Your task to perform on an android device: Open sound settings Image 0: 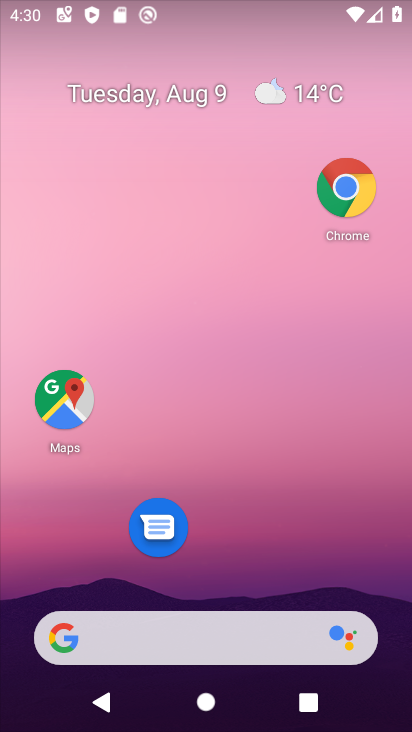
Step 0: drag from (192, 584) to (199, 114)
Your task to perform on an android device: Open sound settings Image 1: 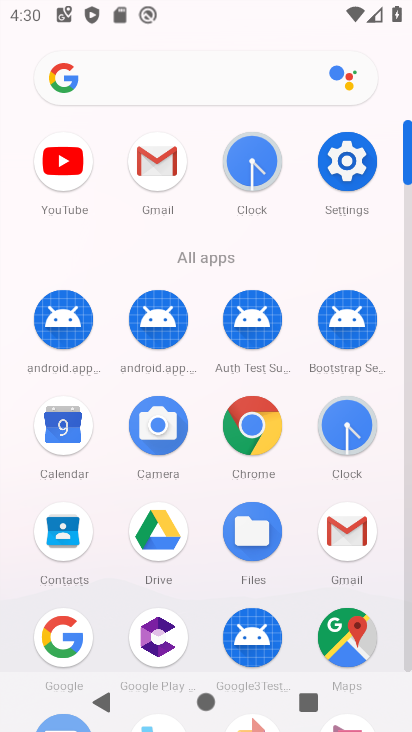
Step 1: click (340, 170)
Your task to perform on an android device: Open sound settings Image 2: 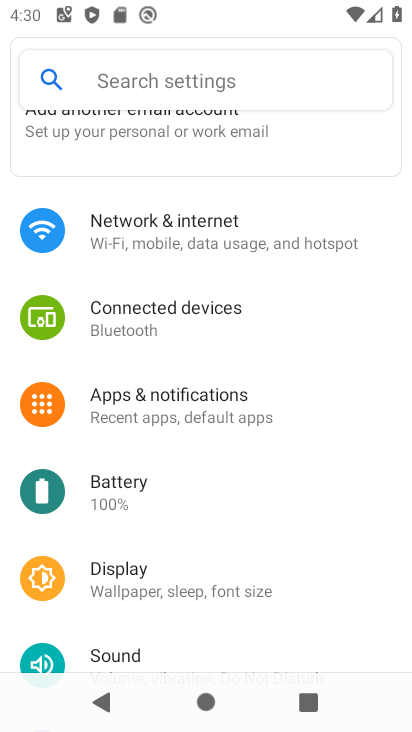
Step 2: click (125, 654)
Your task to perform on an android device: Open sound settings Image 3: 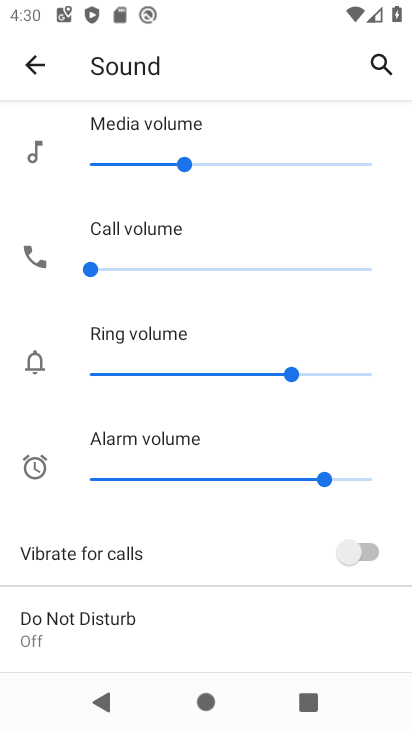
Step 3: task complete